Your task to perform on an android device: Open calendar and show me the second week of next month Image 0: 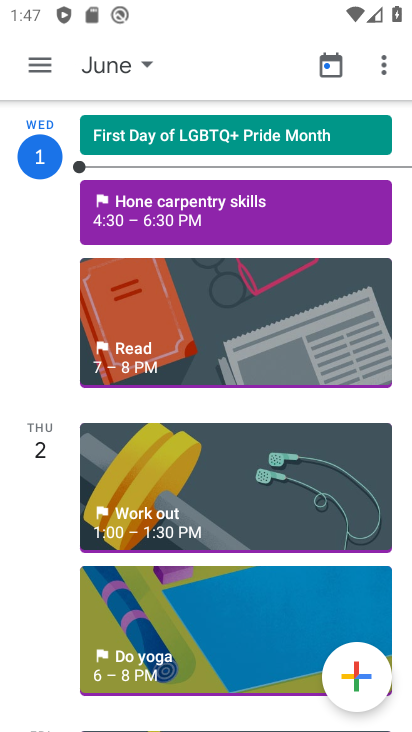
Step 0: press home button
Your task to perform on an android device: Open calendar and show me the second week of next month Image 1: 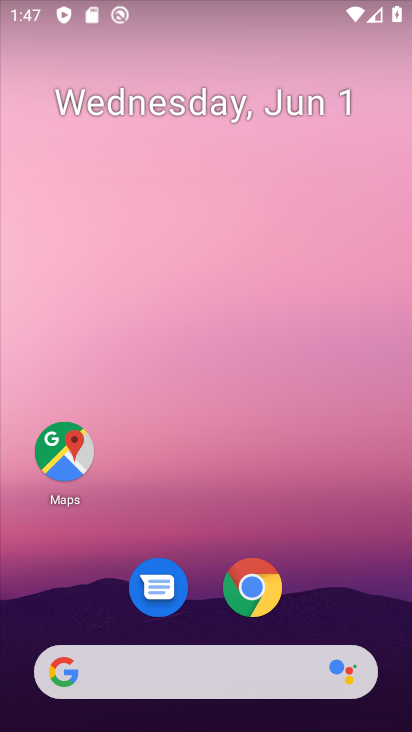
Step 1: click (276, 137)
Your task to perform on an android device: Open calendar and show me the second week of next month Image 2: 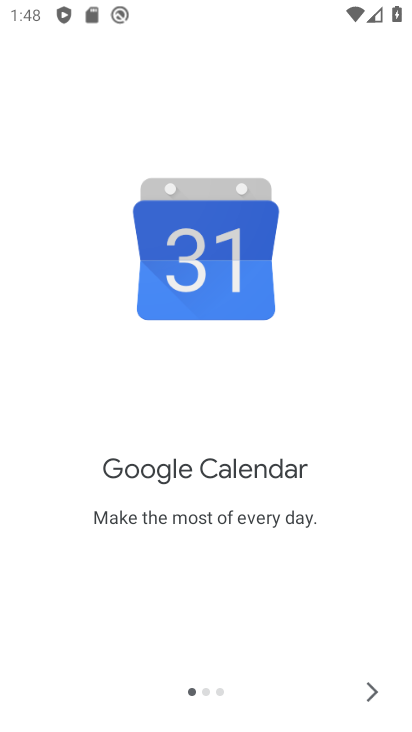
Step 2: click (365, 688)
Your task to perform on an android device: Open calendar and show me the second week of next month Image 3: 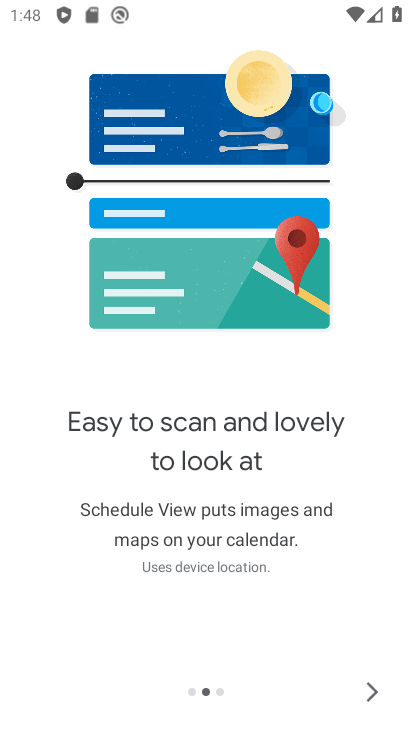
Step 3: click (365, 688)
Your task to perform on an android device: Open calendar and show me the second week of next month Image 4: 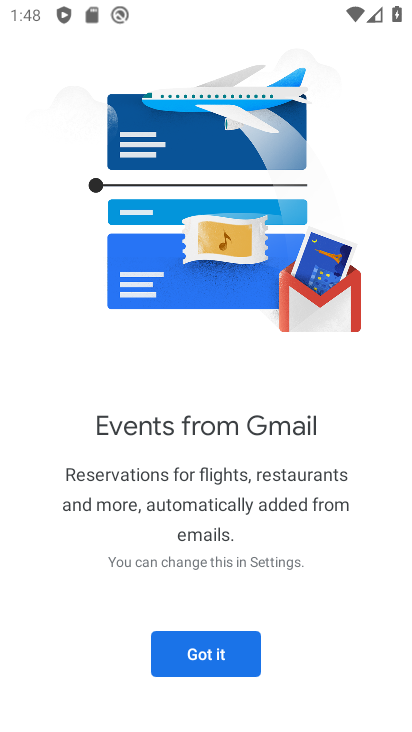
Step 4: click (187, 662)
Your task to perform on an android device: Open calendar and show me the second week of next month Image 5: 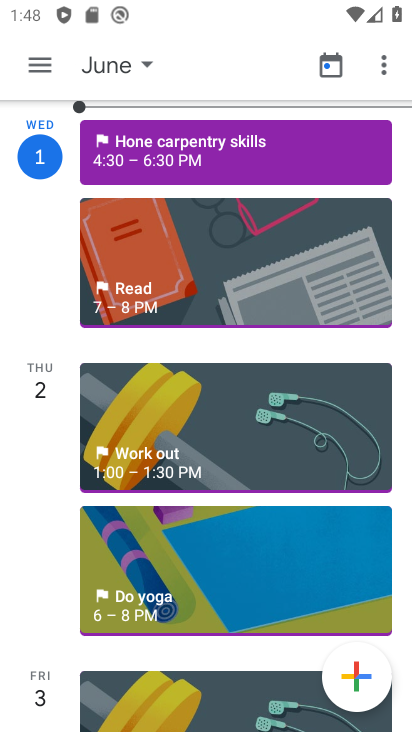
Step 5: click (41, 61)
Your task to perform on an android device: Open calendar and show me the second week of next month Image 6: 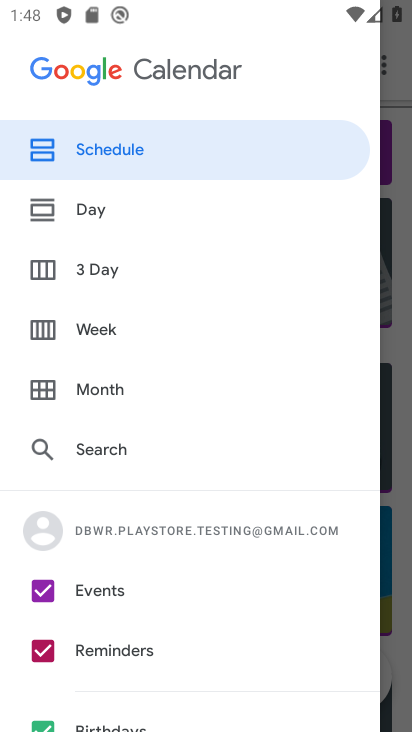
Step 6: click (114, 392)
Your task to perform on an android device: Open calendar and show me the second week of next month Image 7: 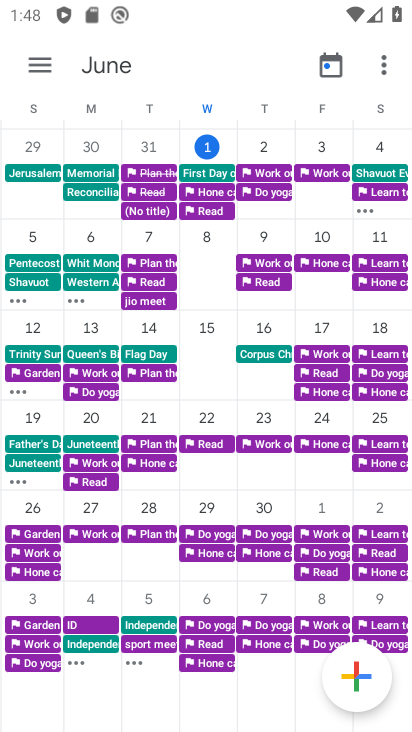
Step 7: drag from (336, 305) to (16, 294)
Your task to perform on an android device: Open calendar and show me the second week of next month Image 8: 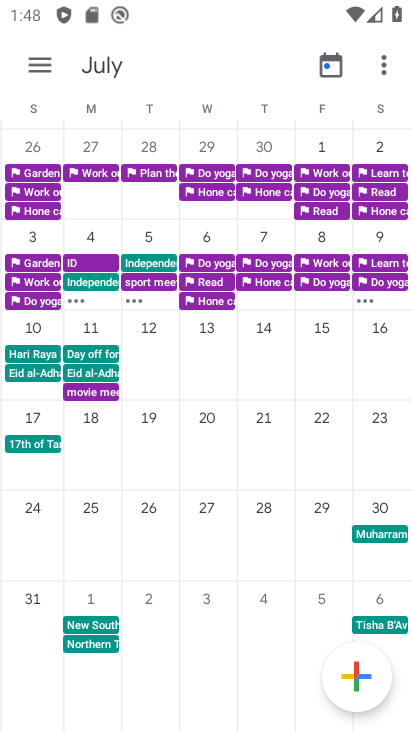
Step 8: click (25, 238)
Your task to perform on an android device: Open calendar and show me the second week of next month Image 9: 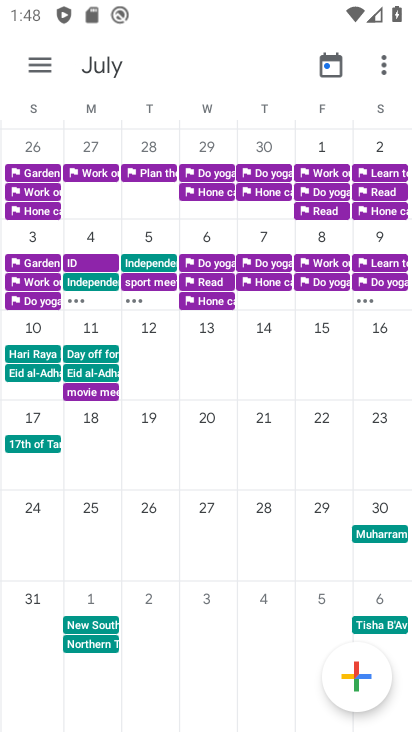
Step 9: click (25, 238)
Your task to perform on an android device: Open calendar and show me the second week of next month Image 10: 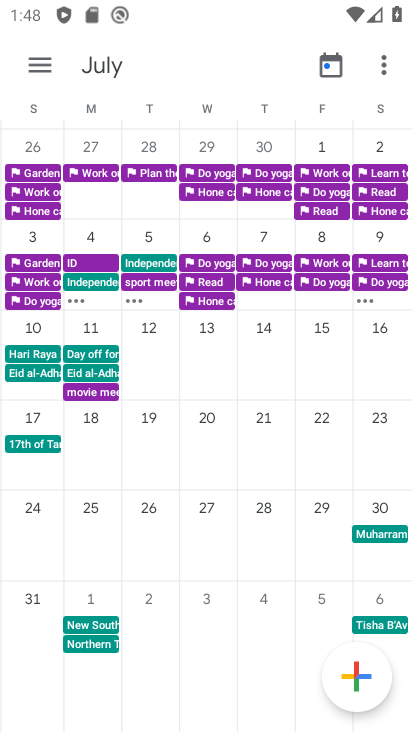
Step 10: click (37, 60)
Your task to perform on an android device: Open calendar and show me the second week of next month Image 11: 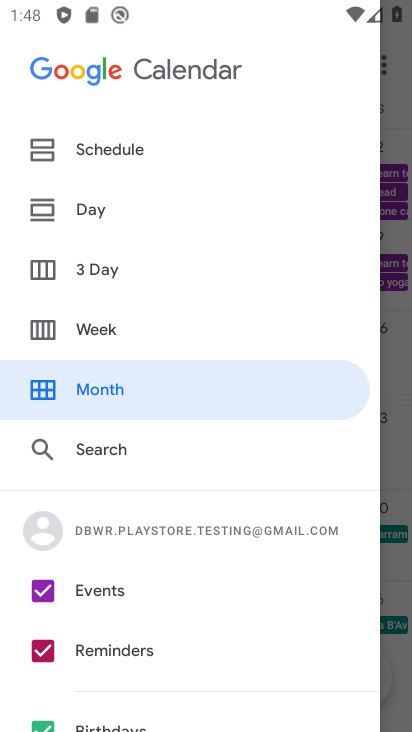
Step 11: click (87, 342)
Your task to perform on an android device: Open calendar and show me the second week of next month Image 12: 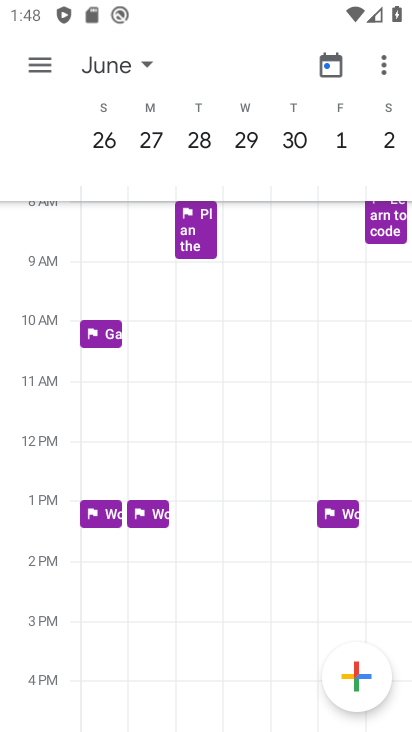
Step 12: task complete